Your task to perform on an android device: open a new tab in the chrome app Image 0: 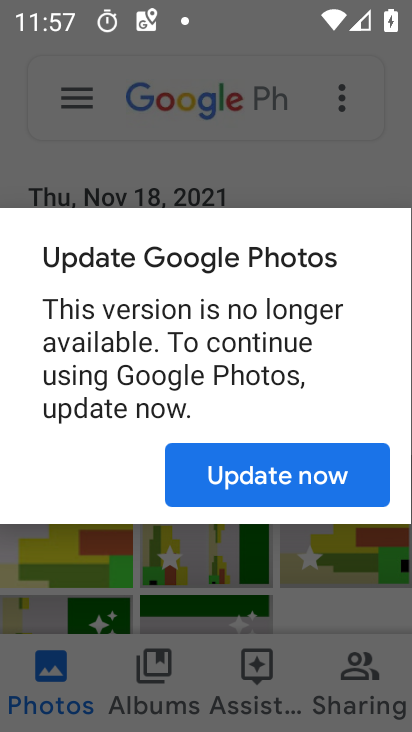
Step 0: press home button
Your task to perform on an android device: open a new tab in the chrome app Image 1: 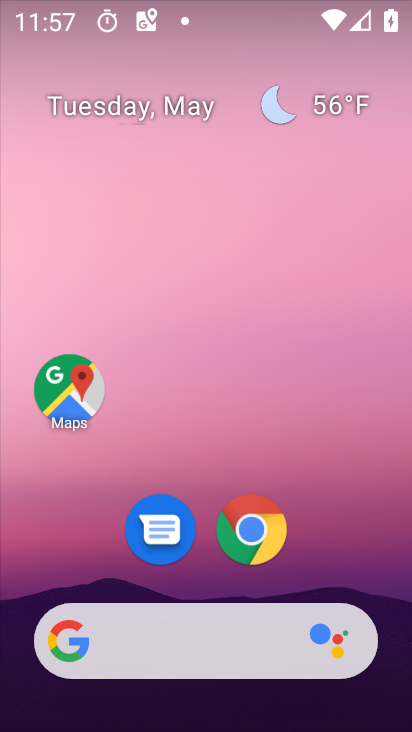
Step 1: click (249, 536)
Your task to perform on an android device: open a new tab in the chrome app Image 2: 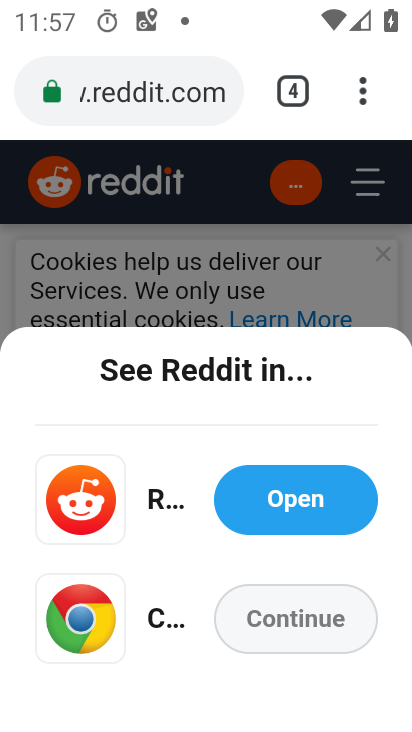
Step 2: click (348, 89)
Your task to perform on an android device: open a new tab in the chrome app Image 3: 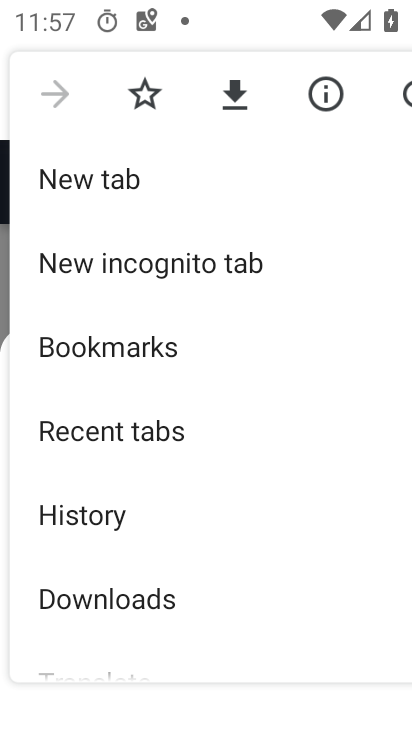
Step 3: click (137, 191)
Your task to perform on an android device: open a new tab in the chrome app Image 4: 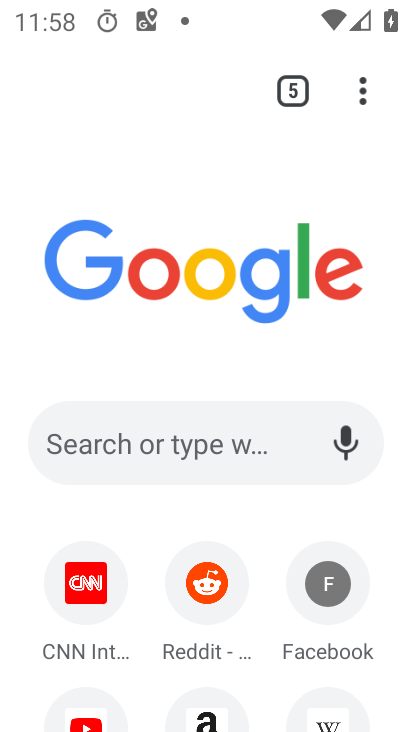
Step 4: task complete